Your task to perform on an android device: When is my next appointment? Image 0: 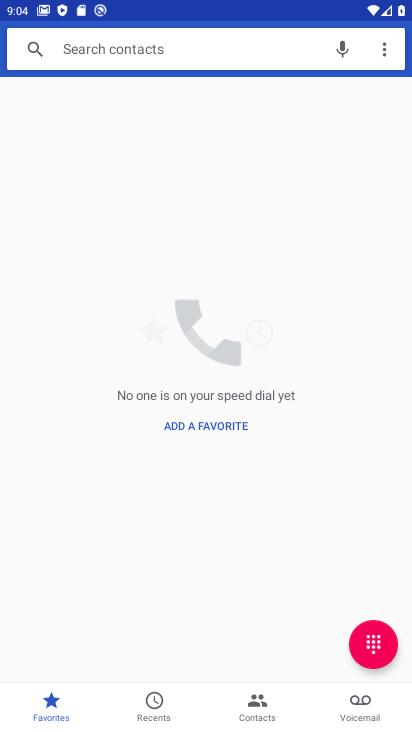
Step 0: press home button
Your task to perform on an android device: When is my next appointment? Image 1: 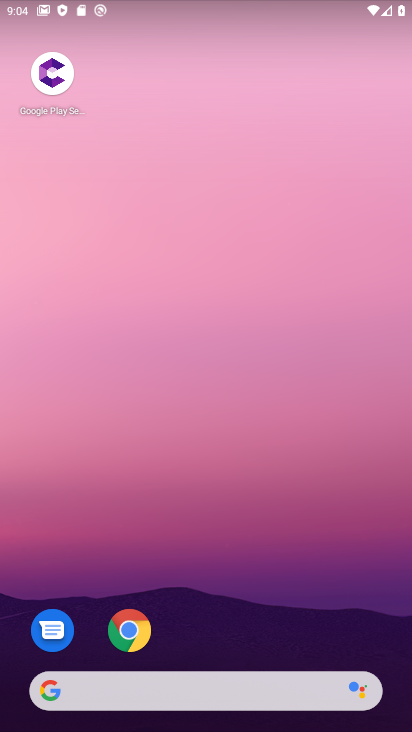
Step 1: drag from (195, 616) to (139, 65)
Your task to perform on an android device: When is my next appointment? Image 2: 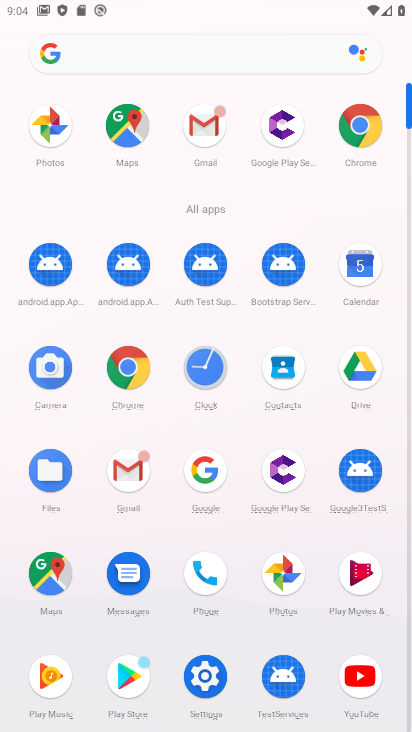
Step 2: click (362, 265)
Your task to perform on an android device: When is my next appointment? Image 3: 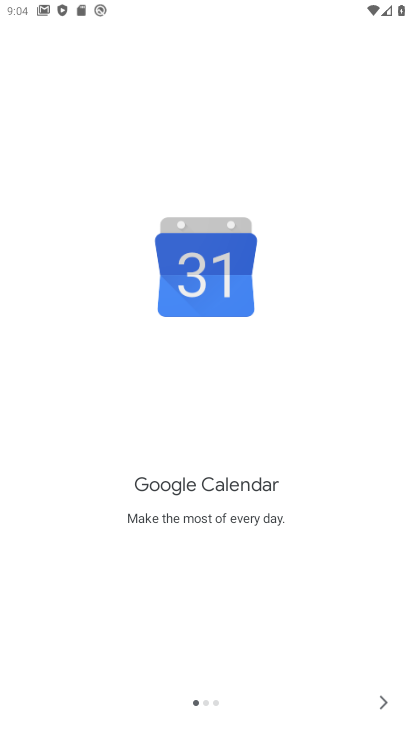
Step 3: click (379, 710)
Your task to perform on an android device: When is my next appointment? Image 4: 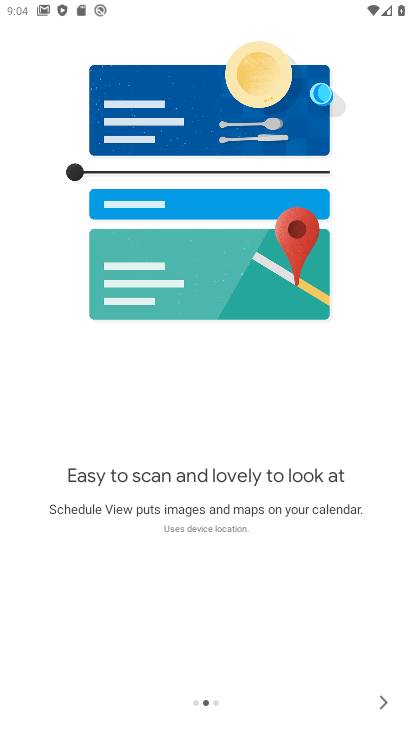
Step 4: click (380, 706)
Your task to perform on an android device: When is my next appointment? Image 5: 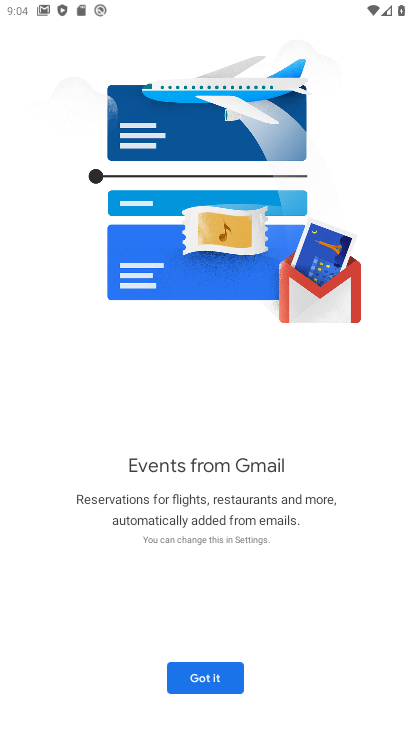
Step 5: click (211, 680)
Your task to perform on an android device: When is my next appointment? Image 6: 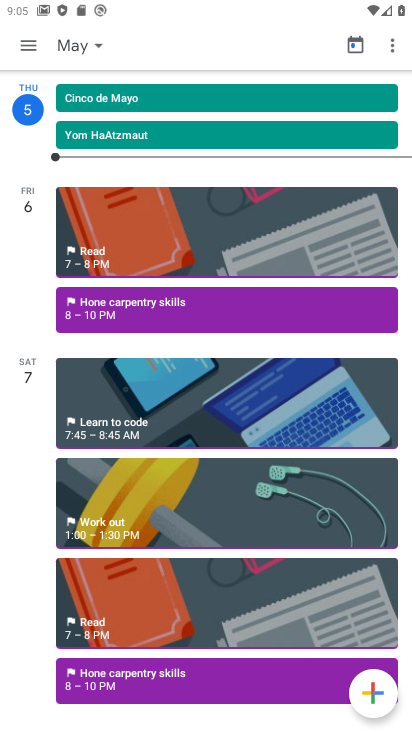
Step 6: click (192, 257)
Your task to perform on an android device: When is my next appointment? Image 7: 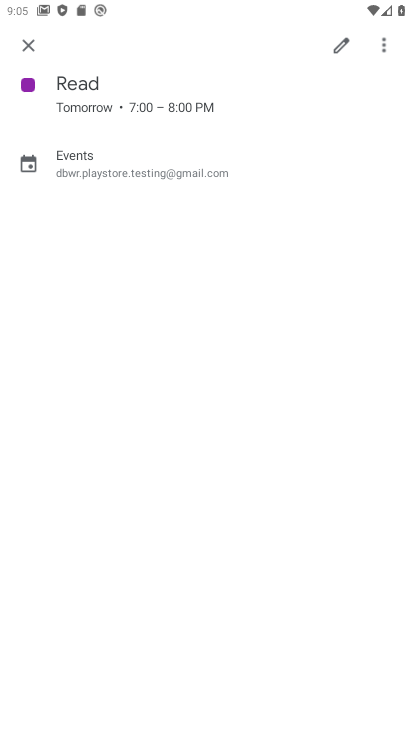
Step 7: task complete